Your task to perform on an android device: Do I have any events this weekend? Image 0: 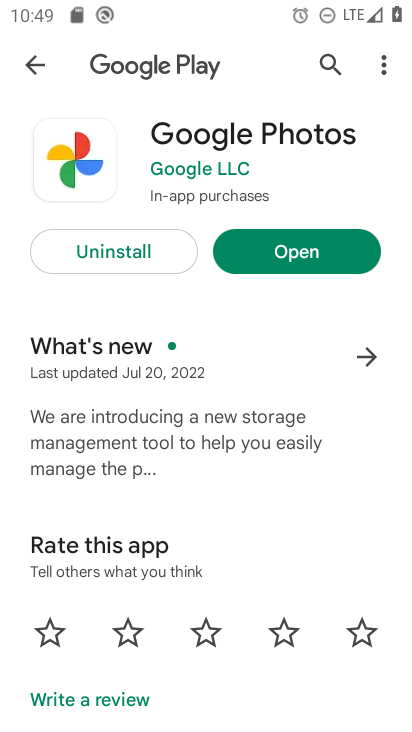
Step 0: press home button
Your task to perform on an android device: Do I have any events this weekend? Image 1: 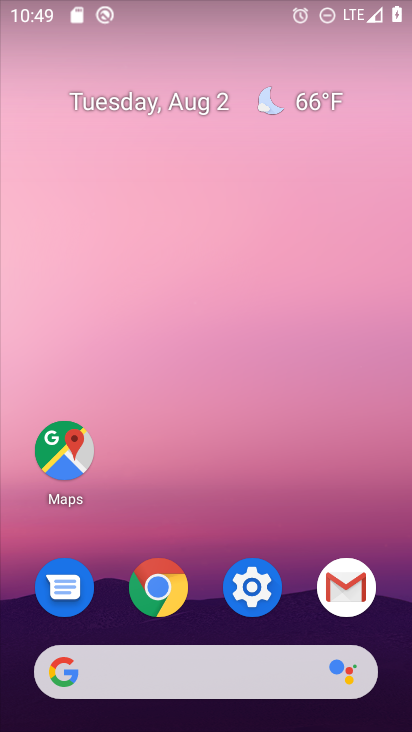
Step 1: drag from (244, 684) to (173, 149)
Your task to perform on an android device: Do I have any events this weekend? Image 2: 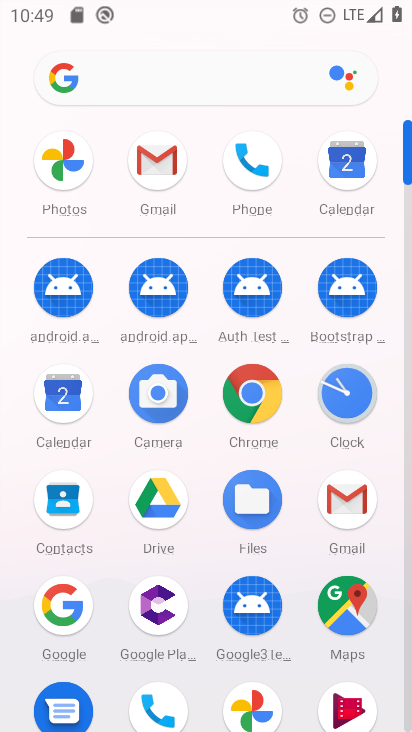
Step 2: click (58, 404)
Your task to perform on an android device: Do I have any events this weekend? Image 3: 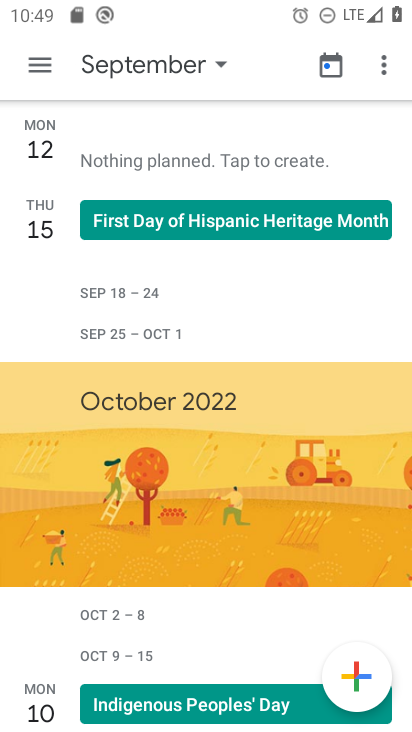
Step 3: click (43, 61)
Your task to perform on an android device: Do I have any events this weekend? Image 4: 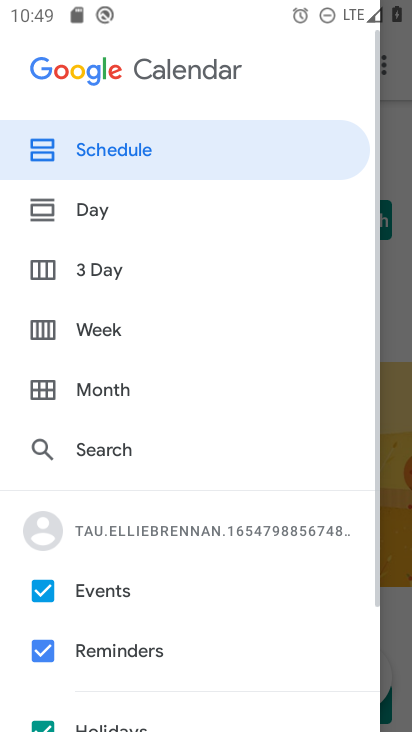
Step 4: click (110, 380)
Your task to perform on an android device: Do I have any events this weekend? Image 5: 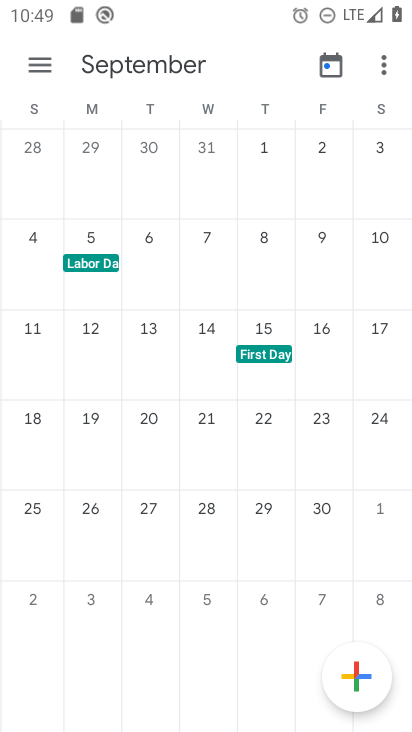
Step 5: drag from (33, 385) to (380, 303)
Your task to perform on an android device: Do I have any events this weekend? Image 6: 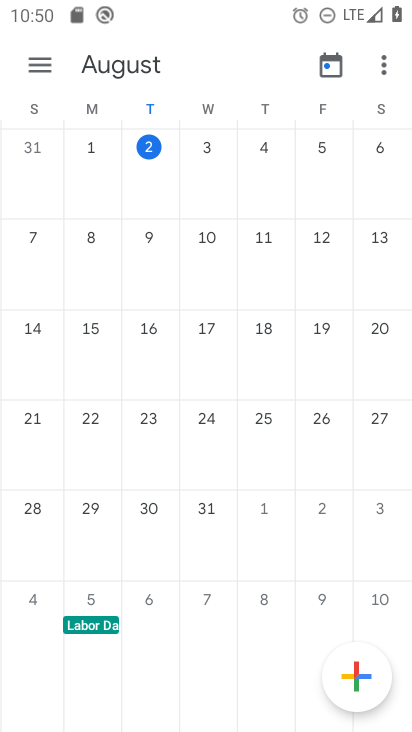
Step 6: click (140, 174)
Your task to perform on an android device: Do I have any events this weekend? Image 7: 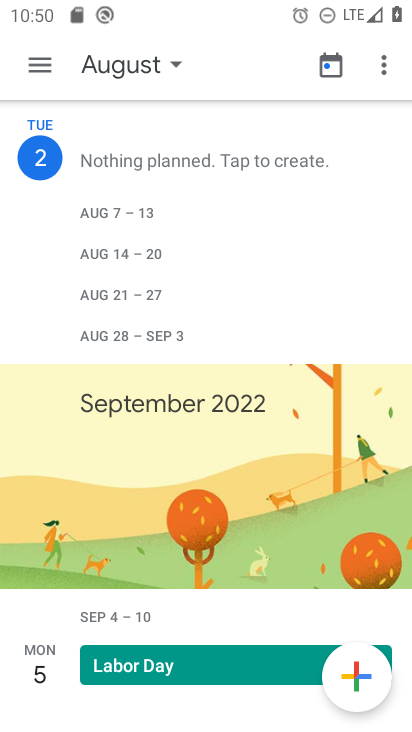
Step 7: task complete